Your task to perform on an android device: turn notification dots off Image 0: 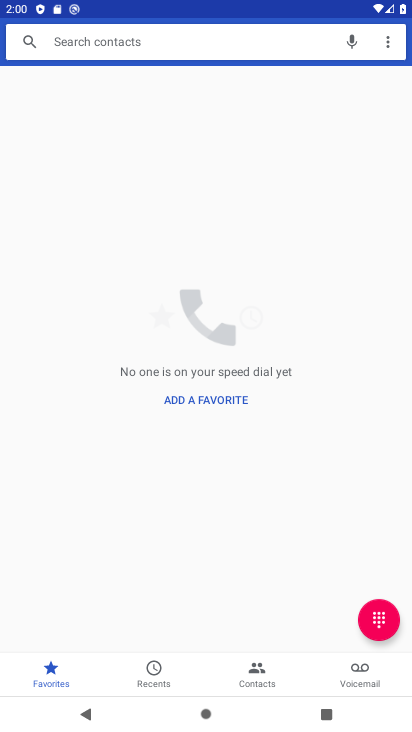
Step 0: press home button
Your task to perform on an android device: turn notification dots off Image 1: 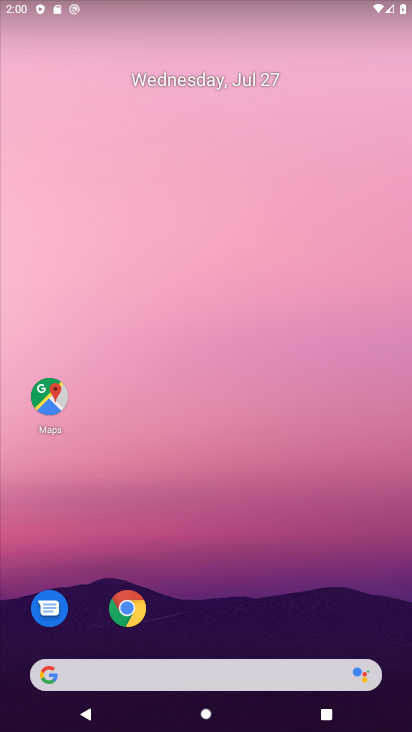
Step 1: drag from (213, 559) to (201, 243)
Your task to perform on an android device: turn notification dots off Image 2: 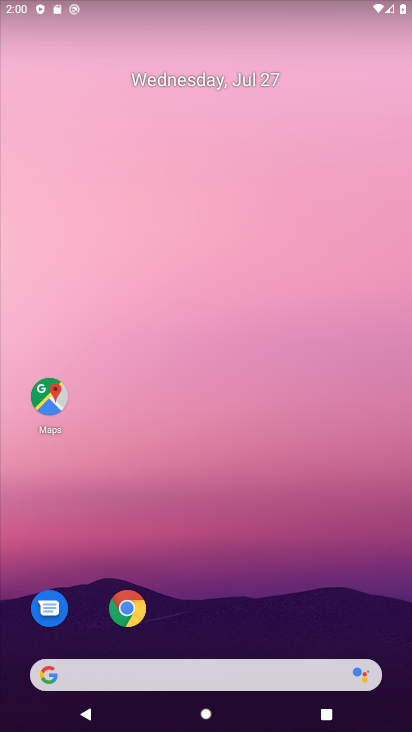
Step 2: click (189, 76)
Your task to perform on an android device: turn notification dots off Image 3: 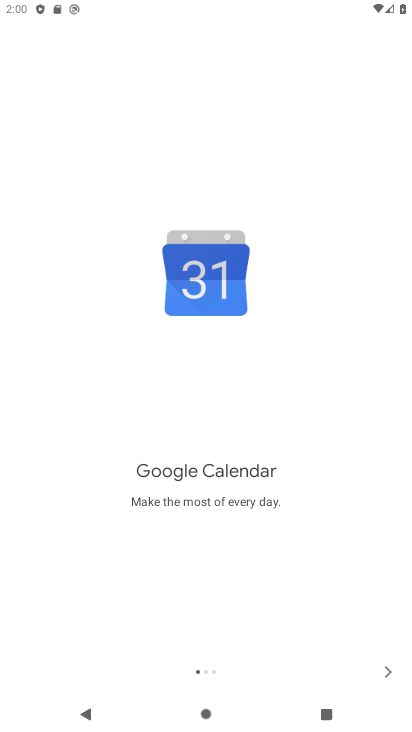
Step 3: click (203, 723)
Your task to perform on an android device: turn notification dots off Image 4: 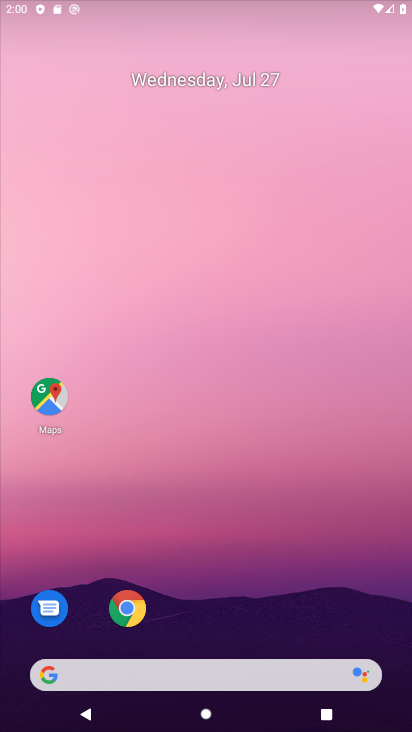
Step 4: click (206, 723)
Your task to perform on an android device: turn notification dots off Image 5: 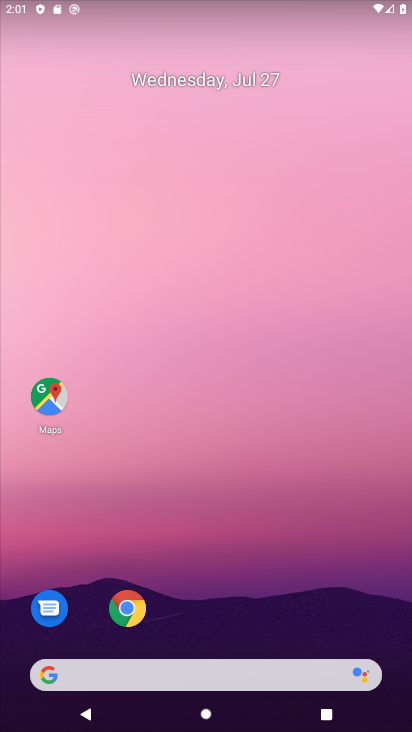
Step 5: drag from (213, 621) to (251, 371)
Your task to perform on an android device: turn notification dots off Image 6: 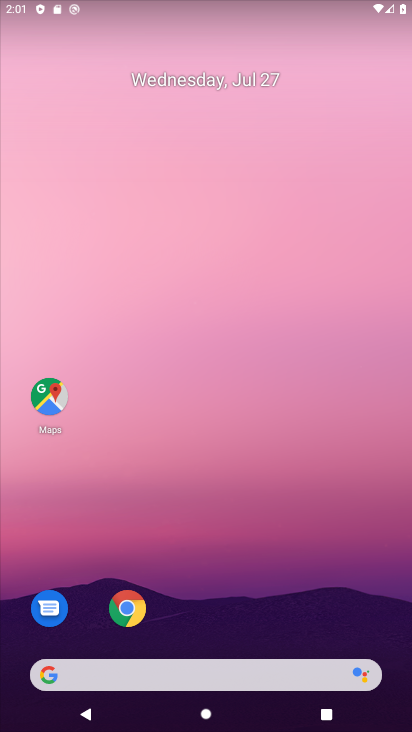
Step 6: drag from (225, 607) to (166, 38)
Your task to perform on an android device: turn notification dots off Image 7: 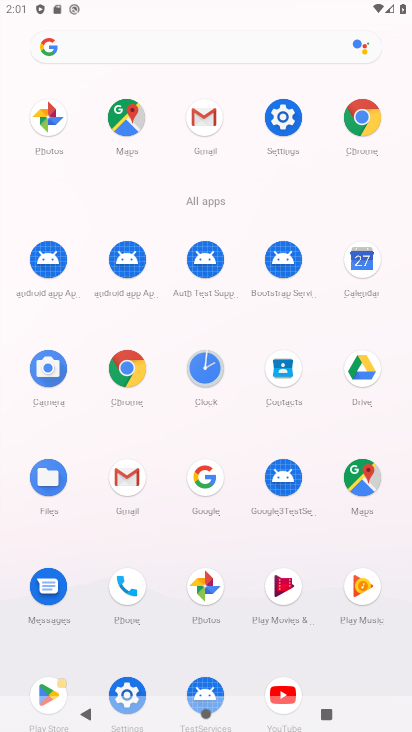
Step 7: click (278, 141)
Your task to perform on an android device: turn notification dots off Image 8: 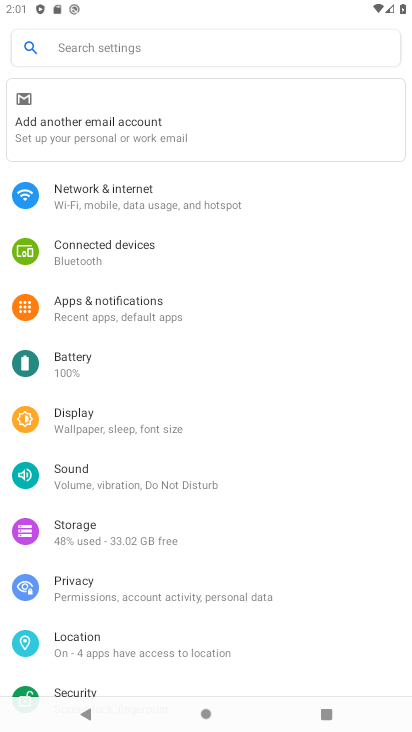
Step 8: click (146, 297)
Your task to perform on an android device: turn notification dots off Image 9: 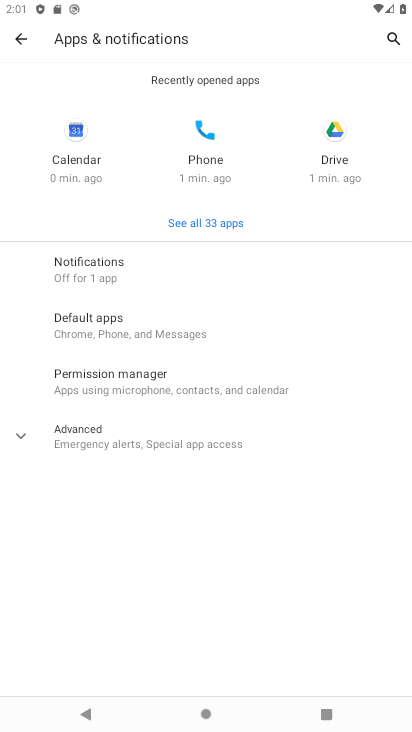
Step 9: click (105, 262)
Your task to perform on an android device: turn notification dots off Image 10: 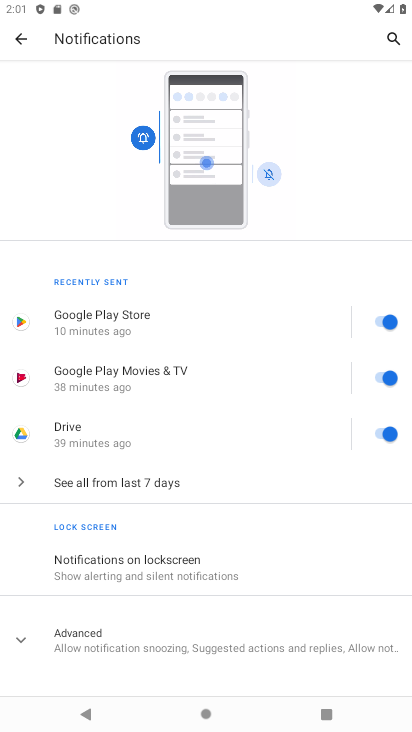
Step 10: click (15, 645)
Your task to perform on an android device: turn notification dots off Image 11: 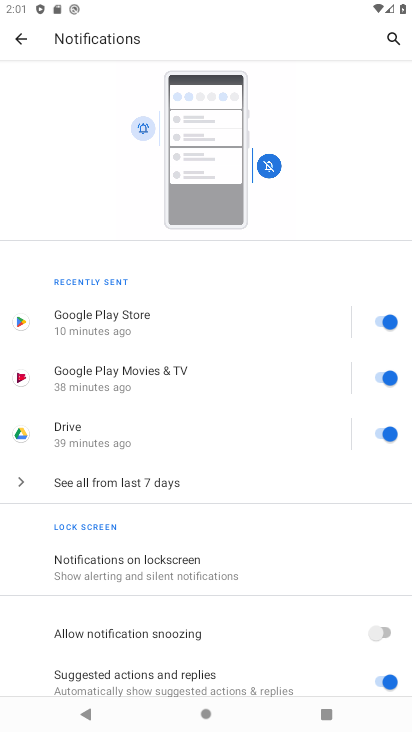
Step 11: drag from (129, 654) to (138, 427)
Your task to perform on an android device: turn notification dots off Image 12: 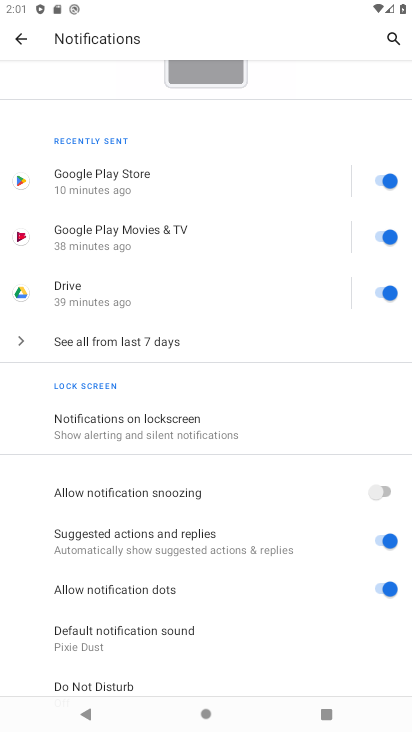
Step 12: drag from (301, 653) to (273, 471)
Your task to perform on an android device: turn notification dots off Image 13: 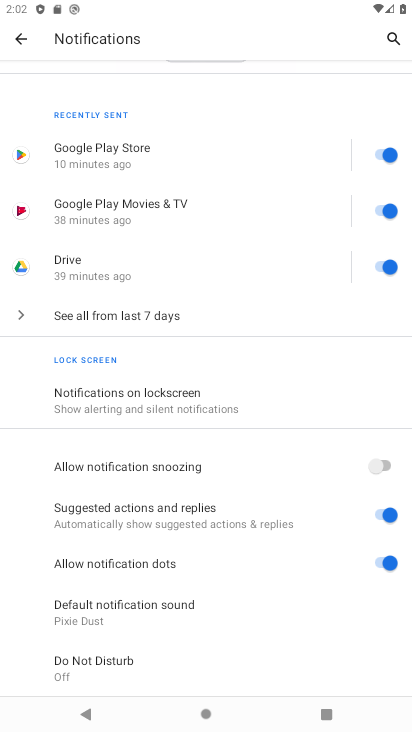
Step 13: drag from (267, 685) to (267, 580)
Your task to perform on an android device: turn notification dots off Image 14: 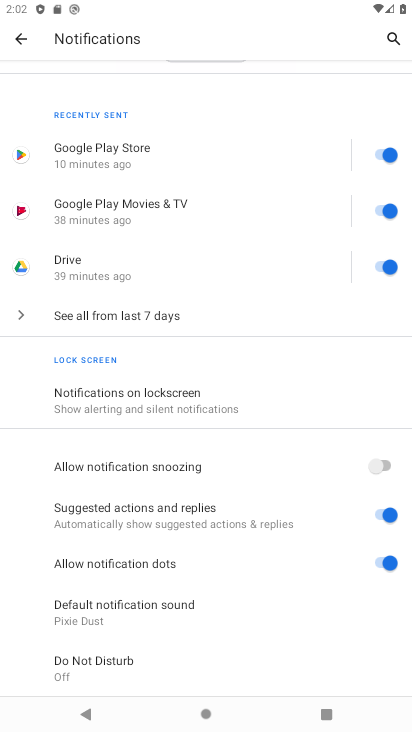
Step 14: drag from (376, 675) to (344, 410)
Your task to perform on an android device: turn notification dots off Image 15: 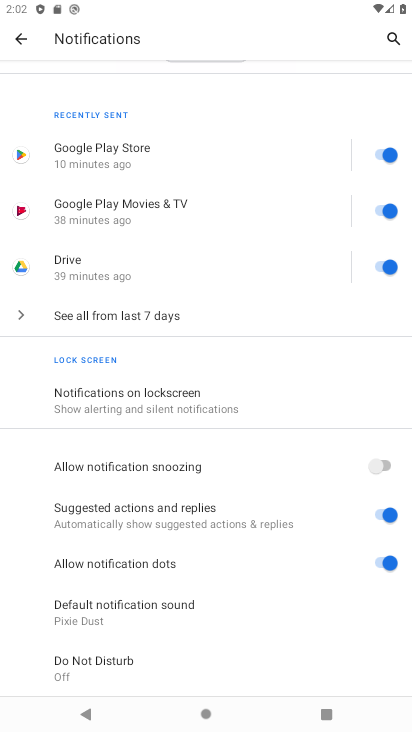
Step 15: click (383, 561)
Your task to perform on an android device: turn notification dots off Image 16: 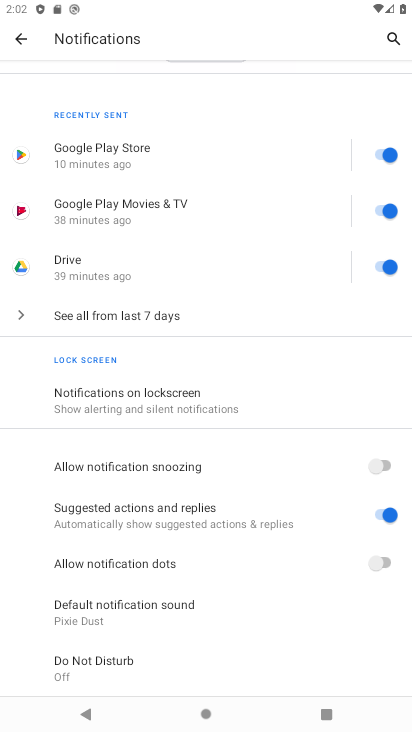
Step 16: task complete